Your task to perform on an android device: Open Amazon Image 0: 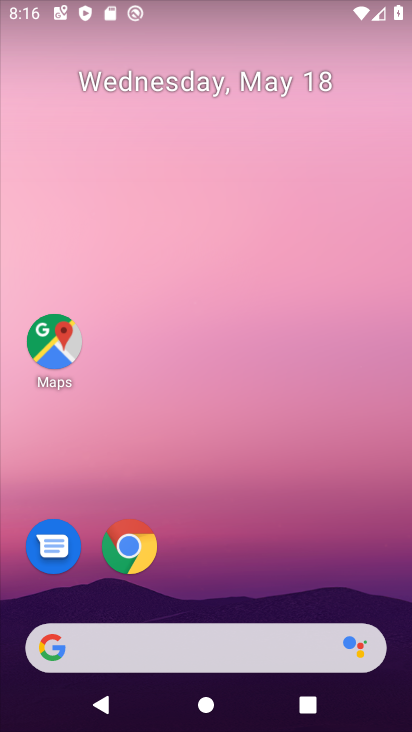
Step 0: drag from (269, 667) to (201, 259)
Your task to perform on an android device: Open Amazon Image 1: 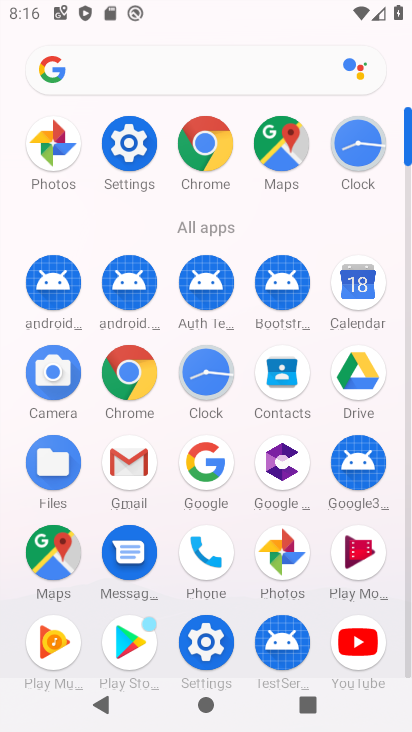
Step 1: click (195, 158)
Your task to perform on an android device: Open Amazon Image 2: 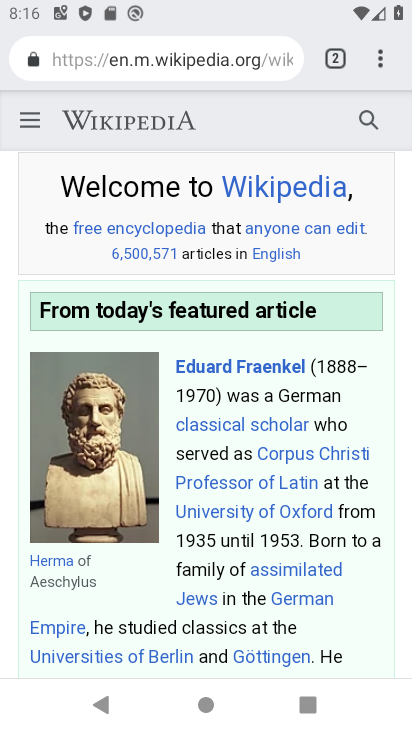
Step 2: click (326, 60)
Your task to perform on an android device: Open Amazon Image 3: 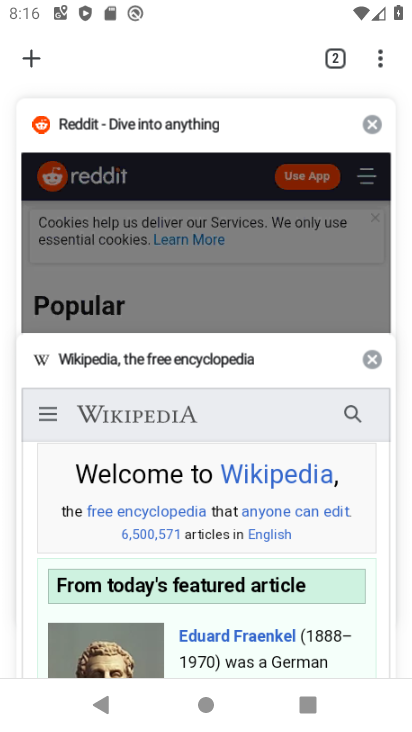
Step 3: click (32, 60)
Your task to perform on an android device: Open Amazon Image 4: 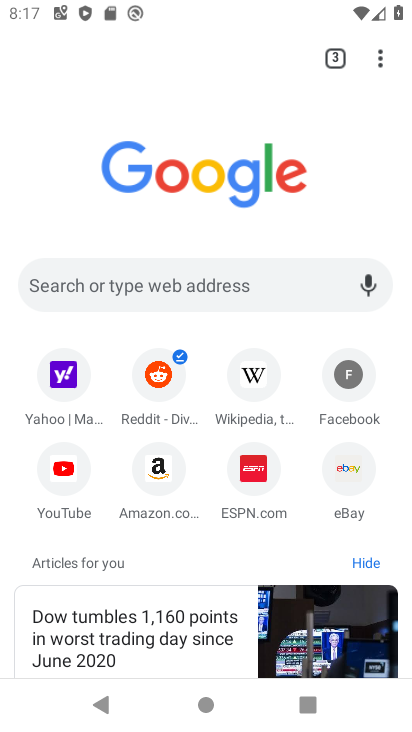
Step 4: click (157, 472)
Your task to perform on an android device: Open Amazon Image 5: 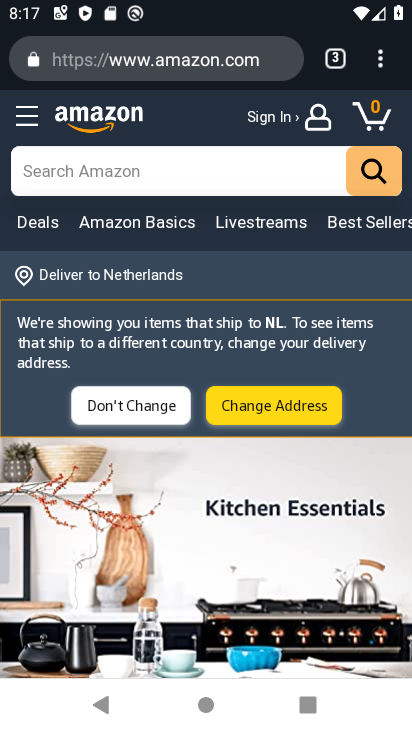
Step 5: task complete